Your task to perform on an android device: Search for seafood restaurants on Google Maps Image 0: 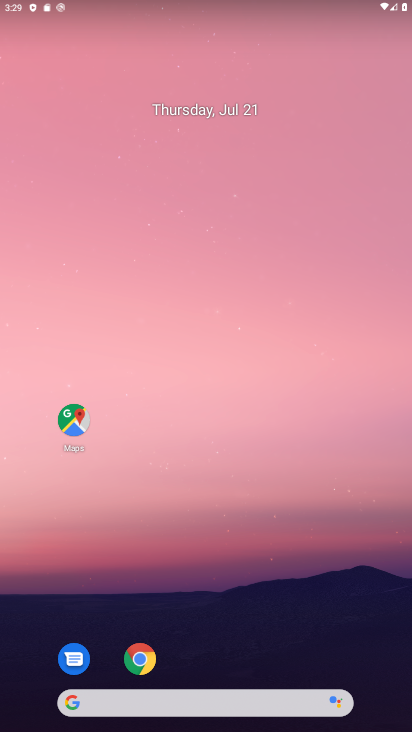
Step 0: click (71, 420)
Your task to perform on an android device: Search for seafood restaurants on Google Maps Image 1: 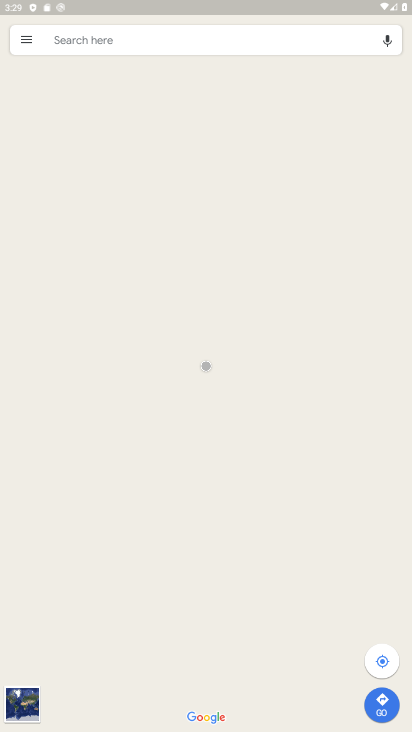
Step 1: click (95, 38)
Your task to perform on an android device: Search for seafood restaurants on Google Maps Image 2: 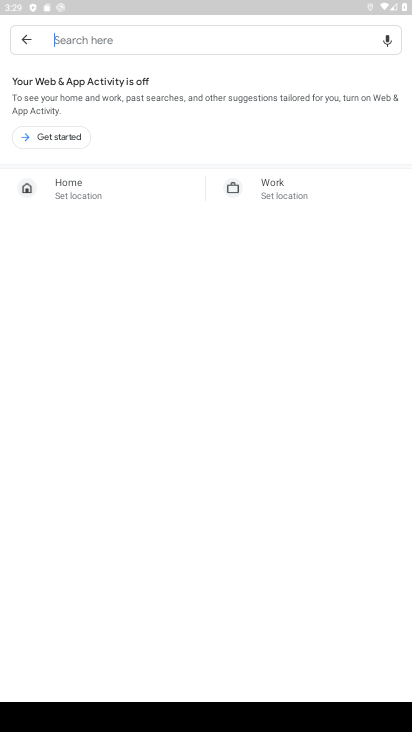
Step 2: type "seafood restaurants"
Your task to perform on an android device: Search for seafood restaurants on Google Maps Image 3: 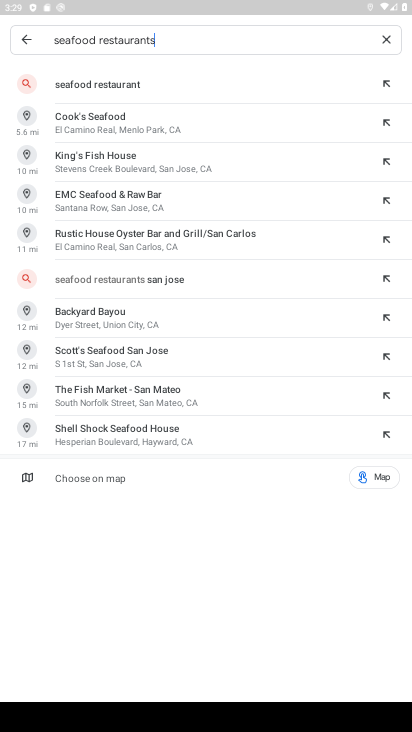
Step 3: click (135, 75)
Your task to perform on an android device: Search for seafood restaurants on Google Maps Image 4: 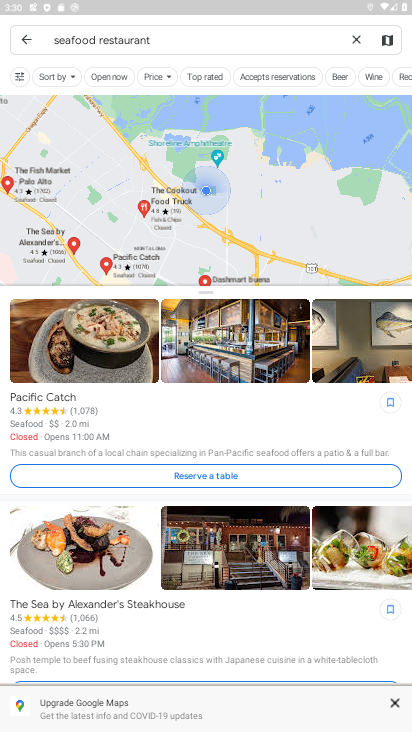
Step 4: task complete